Your task to perform on an android device: Open Maps and search for coffee Image 0: 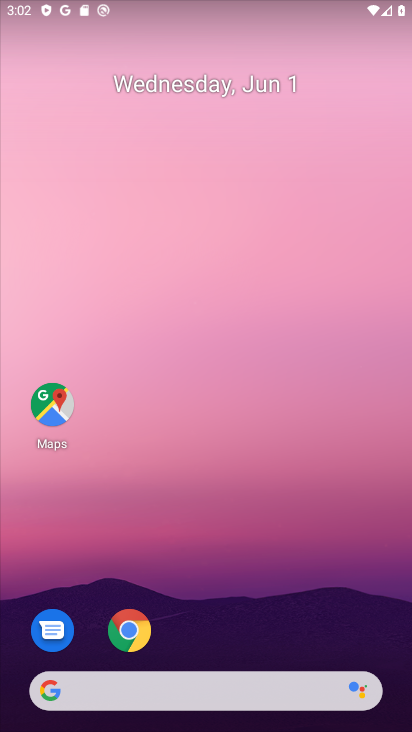
Step 0: click (47, 403)
Your task to perform on an android device: Open Maps and search for coffee Image 1: 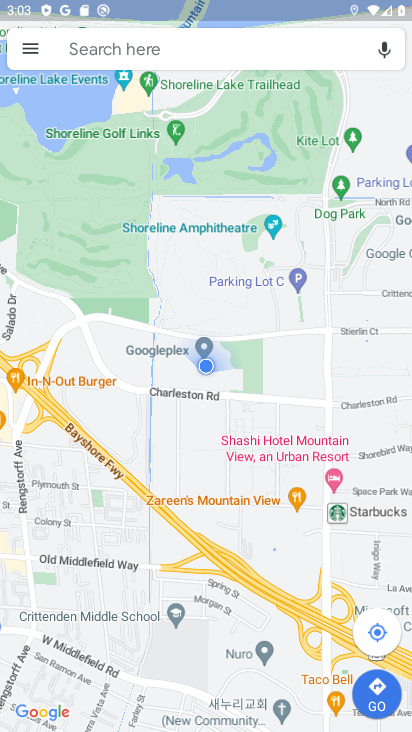
Step 1: click (176, 44)
Your task to perform on an android device: Open Maps and search for coffee Image 2: 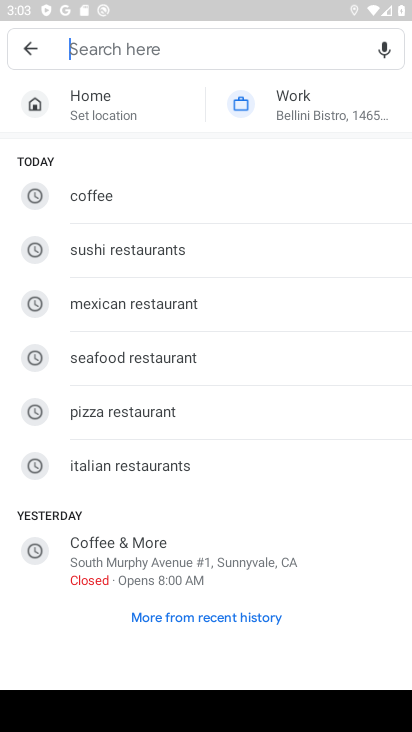
Step 2: type "coffee"
Your task to perform on an android device: Open Maps and search for coffee Image 3: 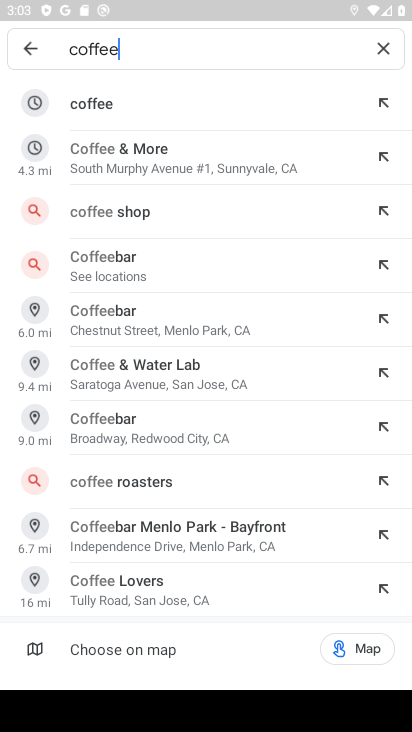
Step 3: click (162, 102)
Your task to perform on an android device: Open Maps and search for coffee Image 4: 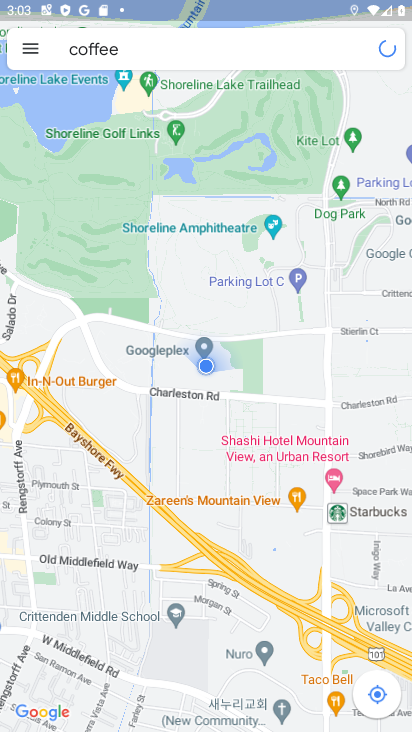
Step 4: task complete